Your task to perform on an android device: Open Google Chrome and click the shortcut for Amazon.com Image 0: 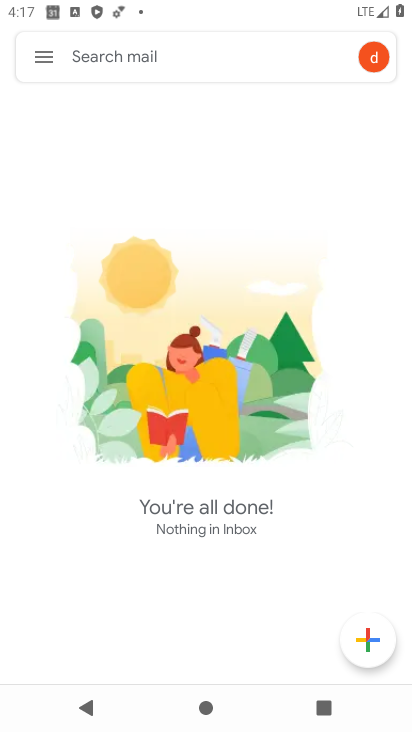
Step 0: press home button
Your task to perform on an android device: Open Google Chrome and click the shortcut for Amazon.com Image 1: 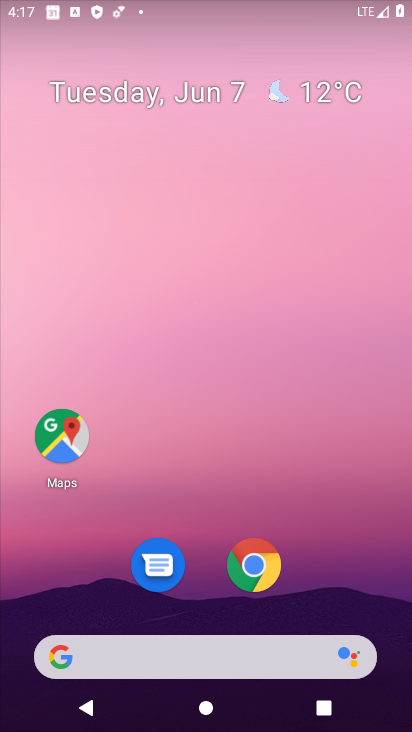
Step 1: drag from (290, 634) to (336, 67)
Your task to perform on an android device: Open Google Chrome and click the shortcut for Amazon.com Image 2: 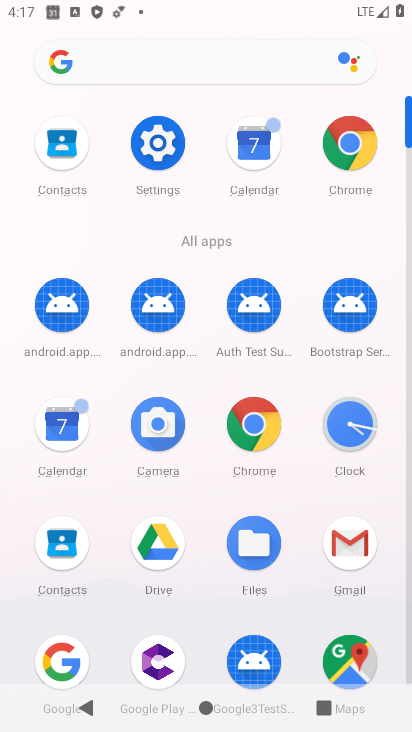
Step 2: click (247, 415)
Your task to perform on an android device: Open Google Chrome and click the shortcut for Amazon.com Image 3: 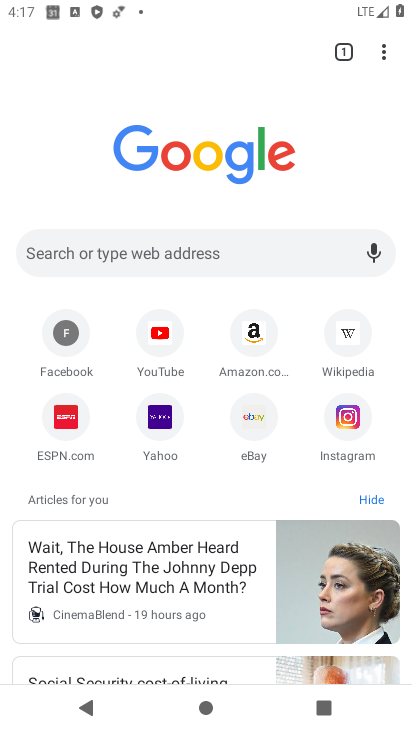
Step 3: click (385, 48)
Your task to perform on an android device: Open Google Chrome and click the shortcut for Amazon.com Image 4: 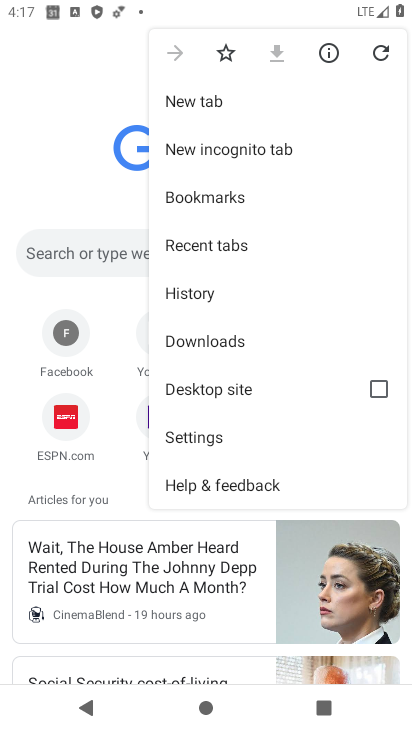
Step 4: click (246, 430)
Your task to perform on an android device: Open Google Chrome and click the shortcut for Amazon.com Image 5: 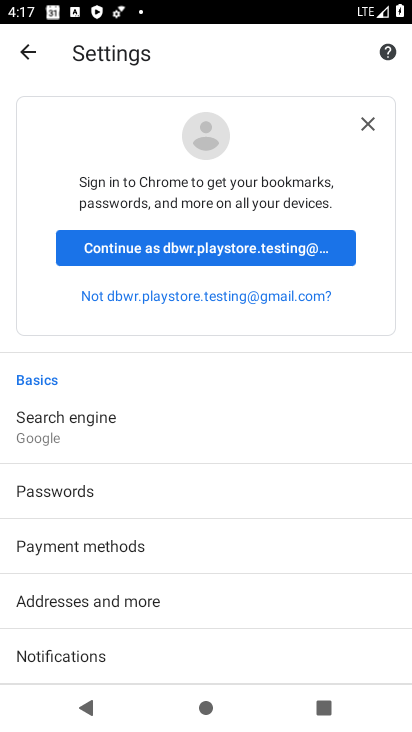
Step 5: press home button
Your task to perform on an android device: Open Google Chrome and click the shortcut for Amazon.com Image 6: 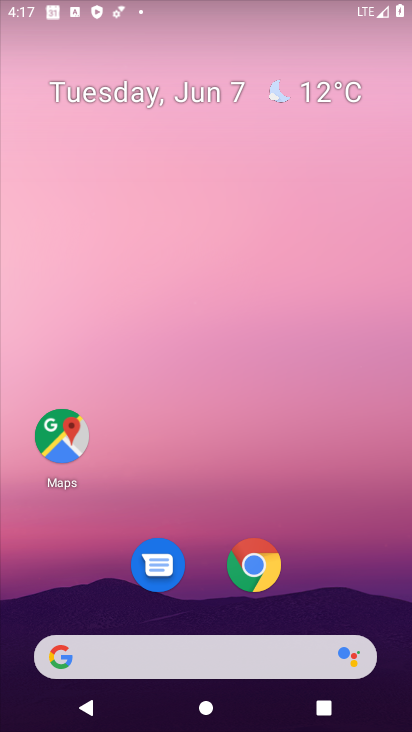
Step 6: drag from (264, 648) to (302, 117)
Your task to perform on an android device: Open Google Chrome and click the shortcut for Amazon.com Image 7: 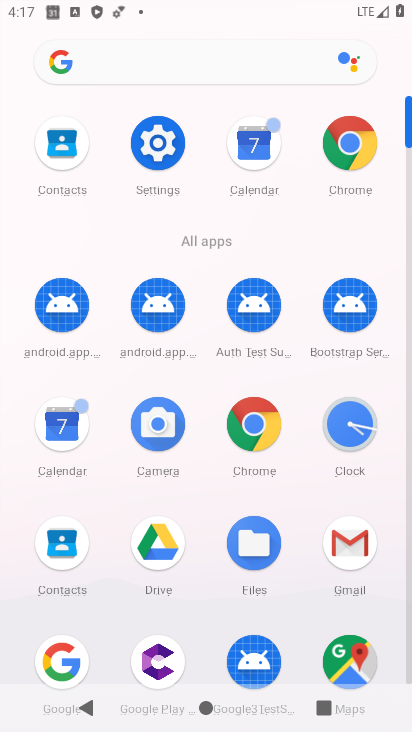
Step 7: click (260, 408)
Your task to perform on an android device: Open Google Chrome and click the shortcut for Amazon.com Image 8: 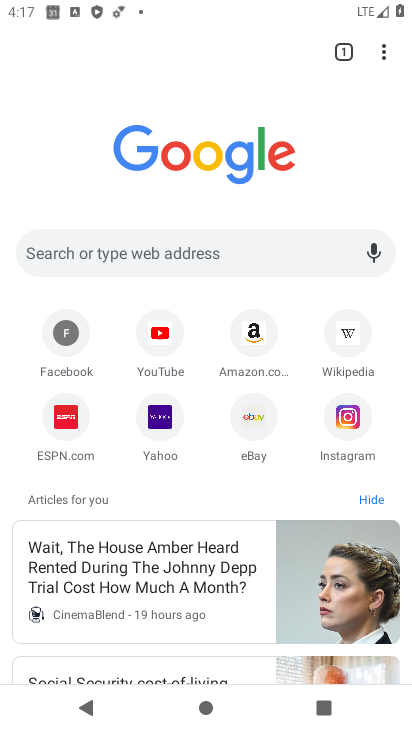
Step 8: click (256, 346)
Your task to perform on an android device: Open Google Chrome and click the shortcut for Amazon.com Image 9: 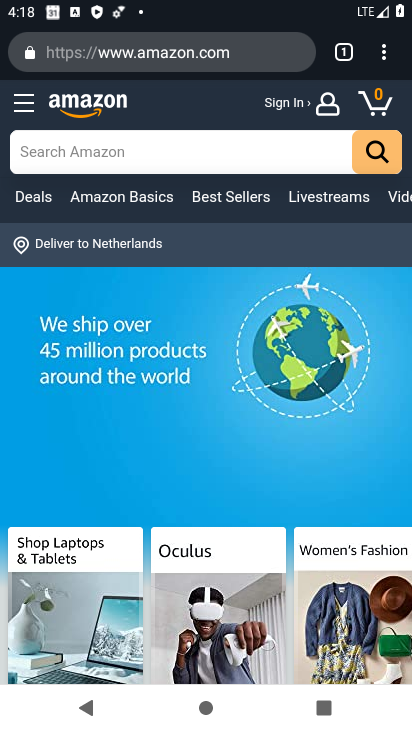
Step 9: task complete